Your task to perform on an android device: open app "ZOOM Cloud Meetings" (install if not already installed) Image 0: 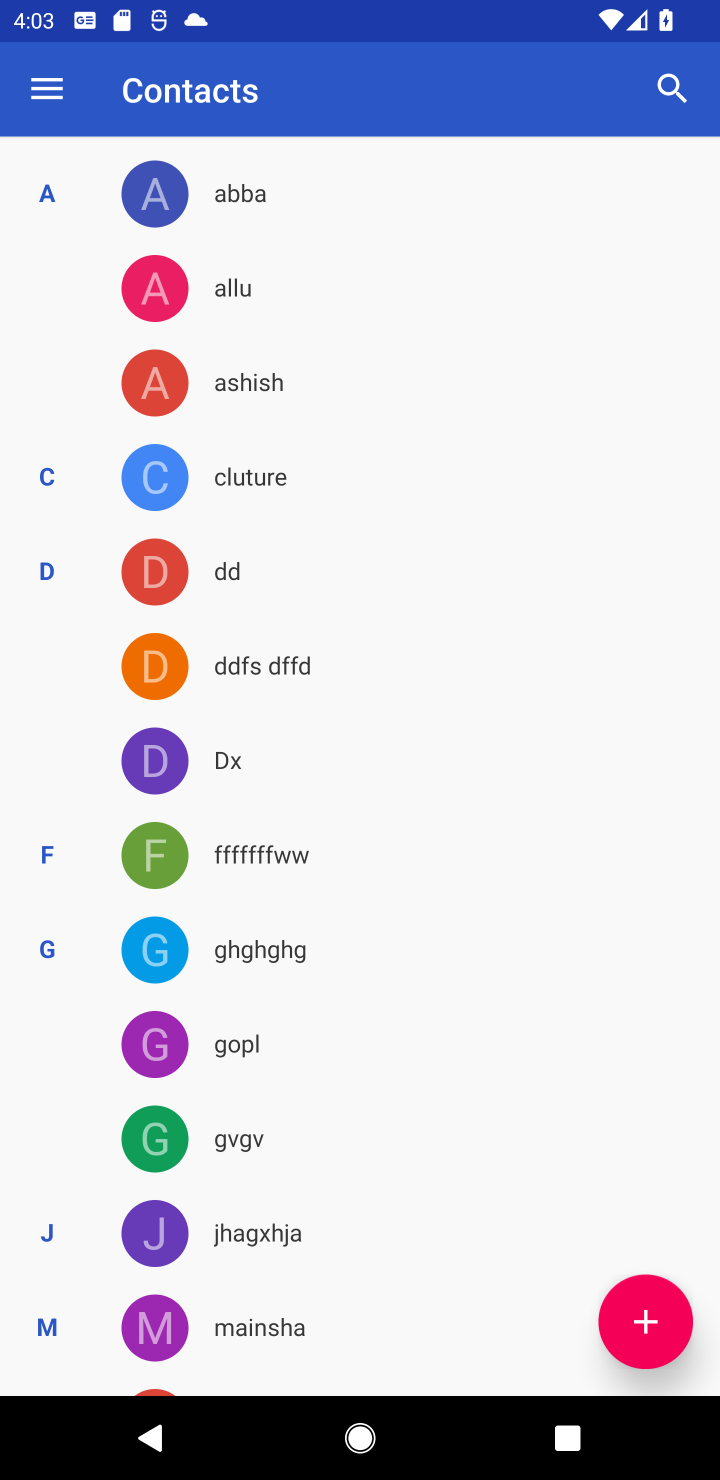
Step 0: press home button
Your task to perform on an android device: open app "ZOOM Cloud Meetings" (install if not already installed) Image 1: 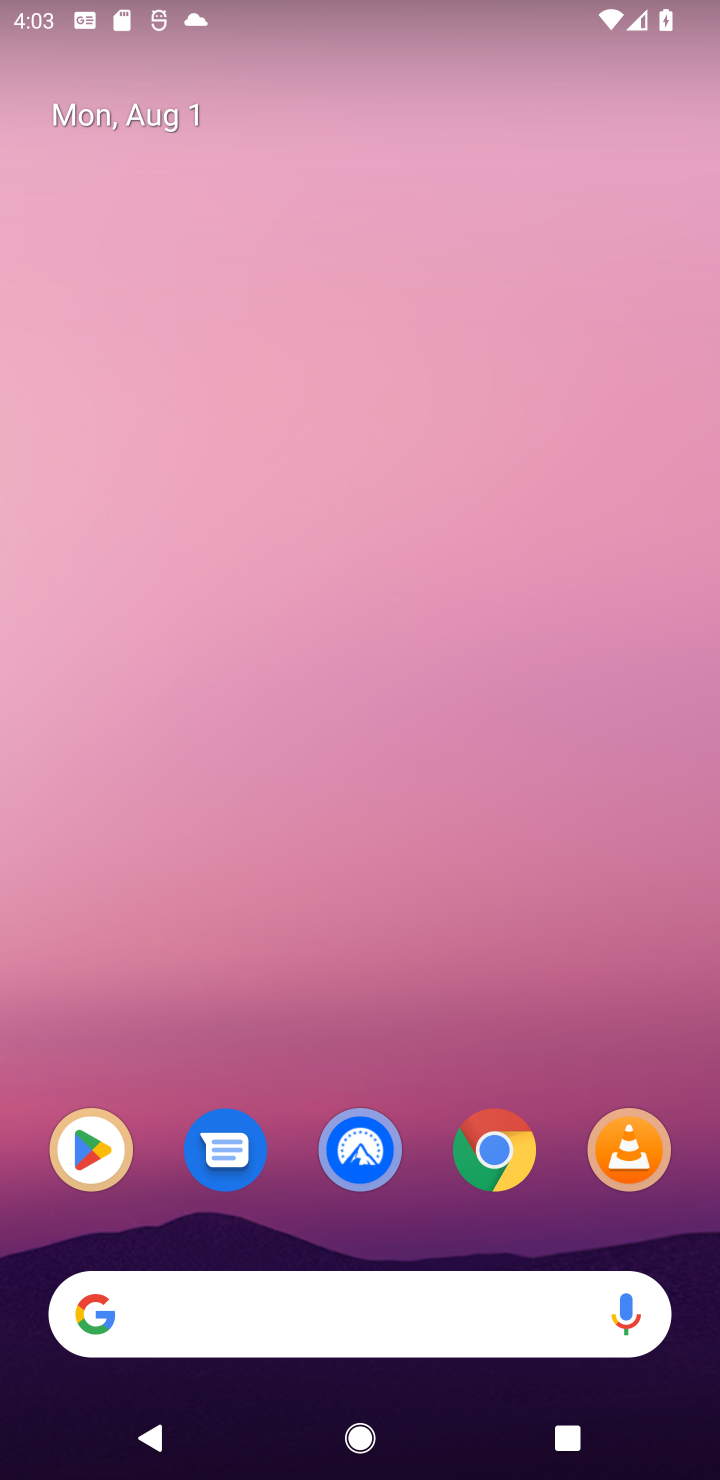
Step 1: drag from (330, 1145) to (417, 87)
Your task to perform on an android device: open app "ZOOM Cloud Meetings" (install if not already installed) Image 2: 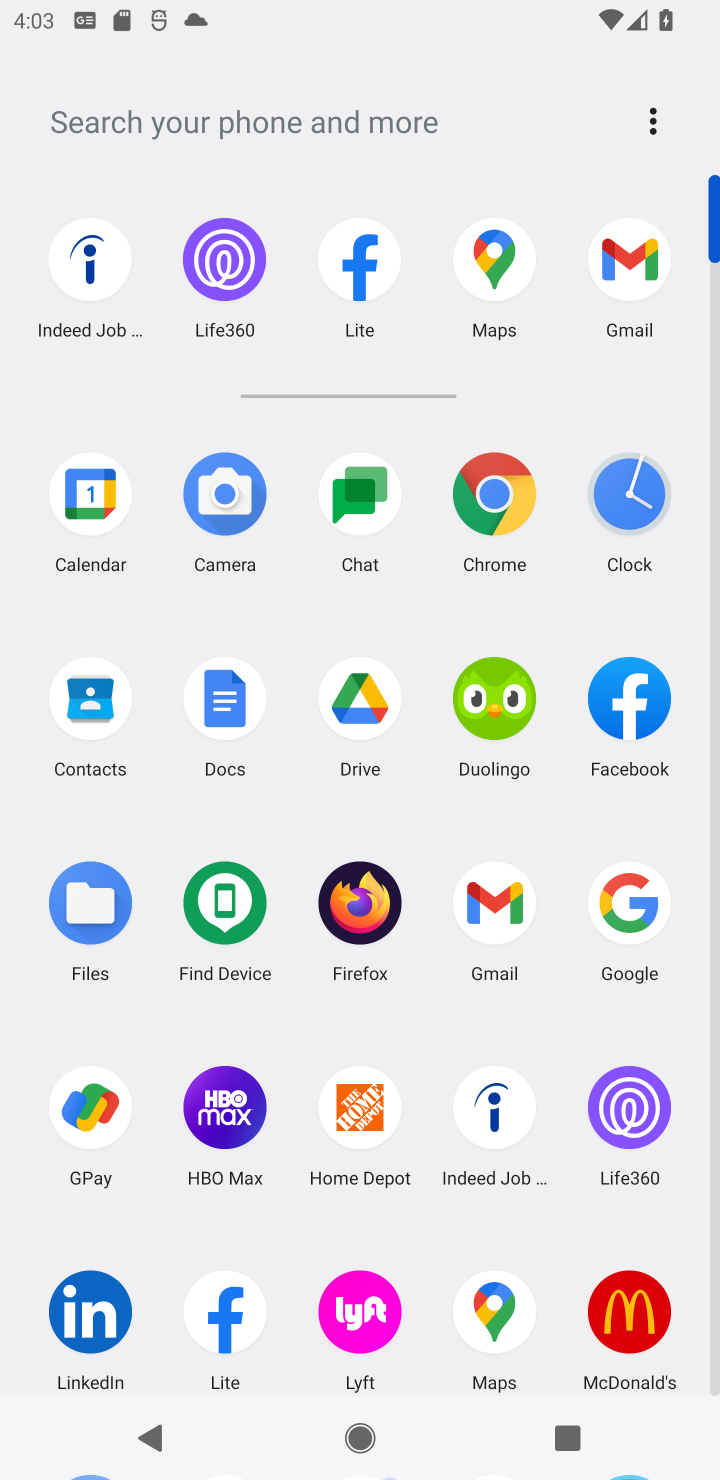
Step 2: click (713, 1387)
Your task to perform on an android device: open app "ZOOM Cloud Meetings" (install if not already installed) Image 3: 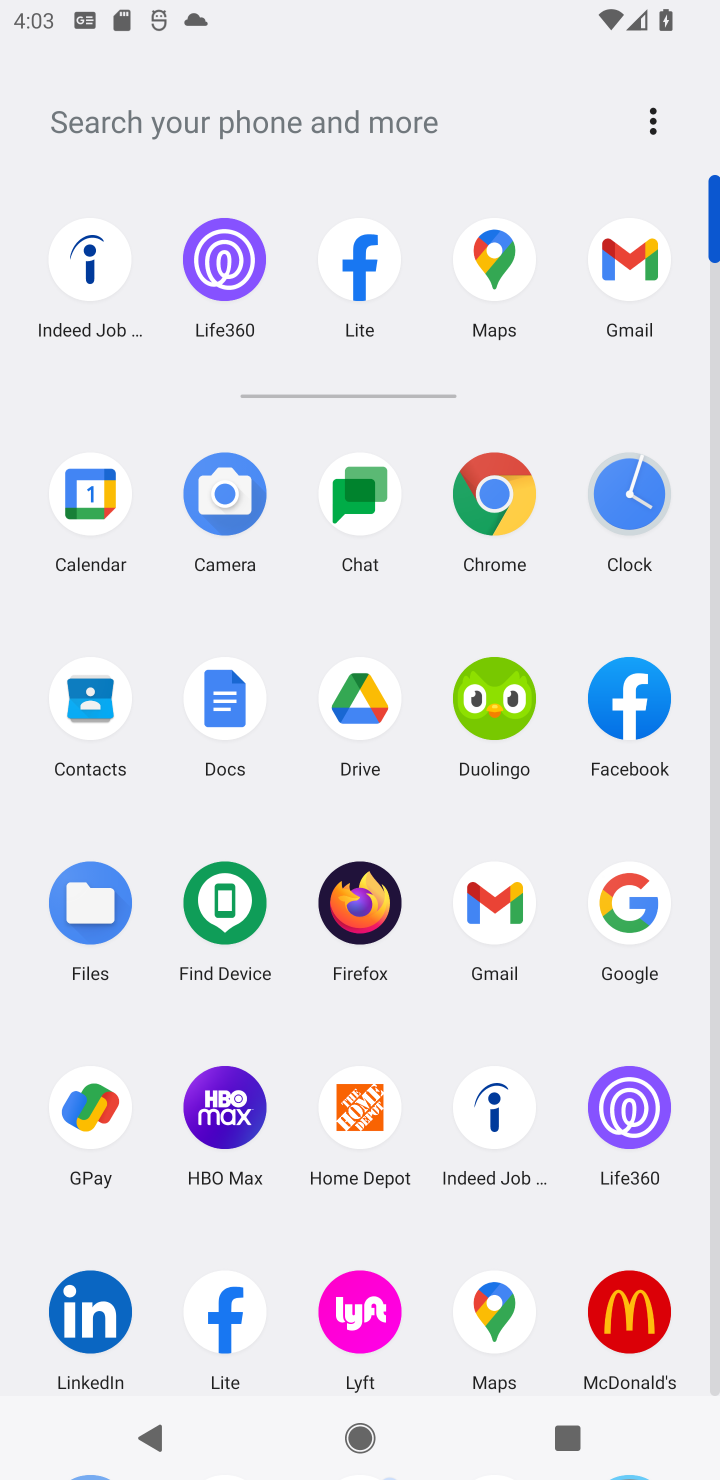
Step 3: click (715, 1387)
Your task to perform on an android device: open app "ZOOM Cloud Meetings" (install if not already installed) Image 4: 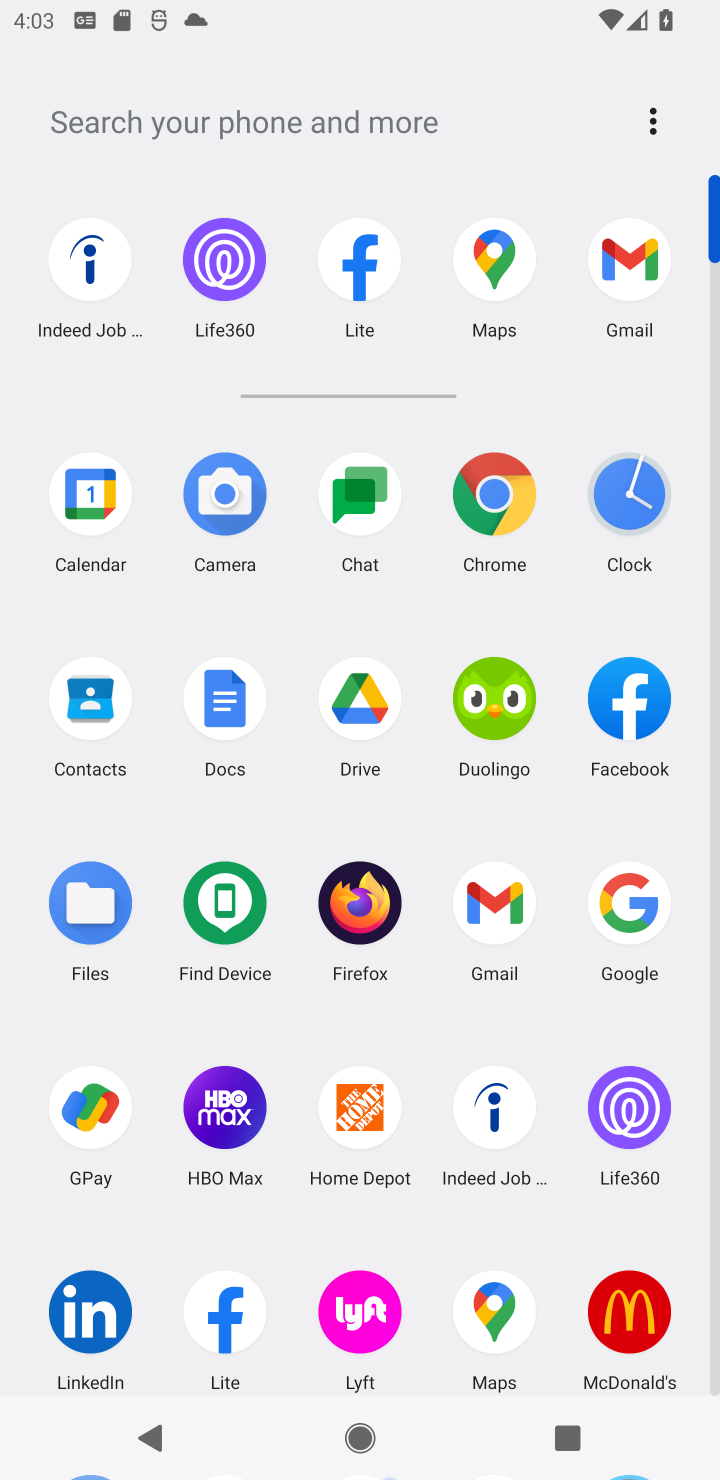
Step 4: click (715, 1387)
Your task to perform on an android device: open app "ZOOM Cloud Meetings" (install if not already installed) Image 5: 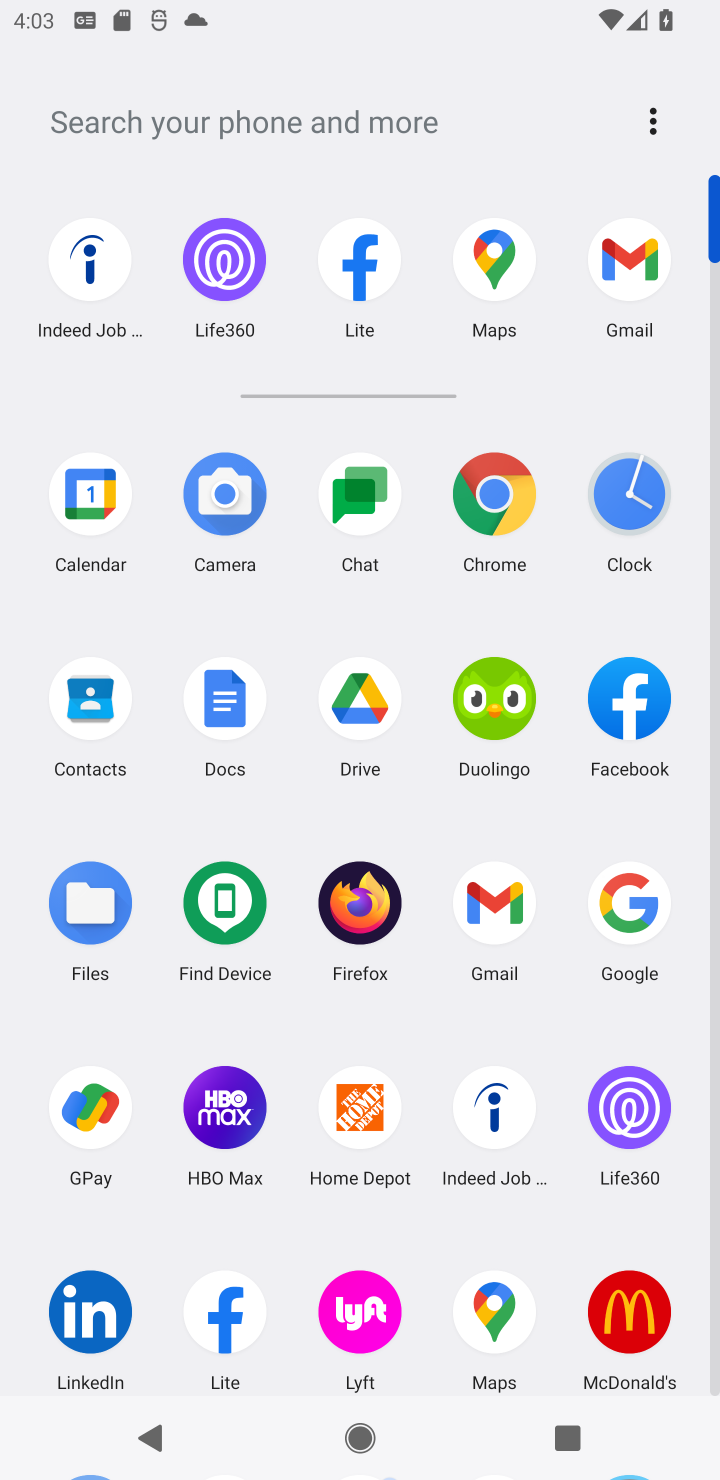
Step 5: click (715, 1387)
Your task to perform on an android device: open app "ZOOM Cloud Meetings" (install if not already installed) Image 6: 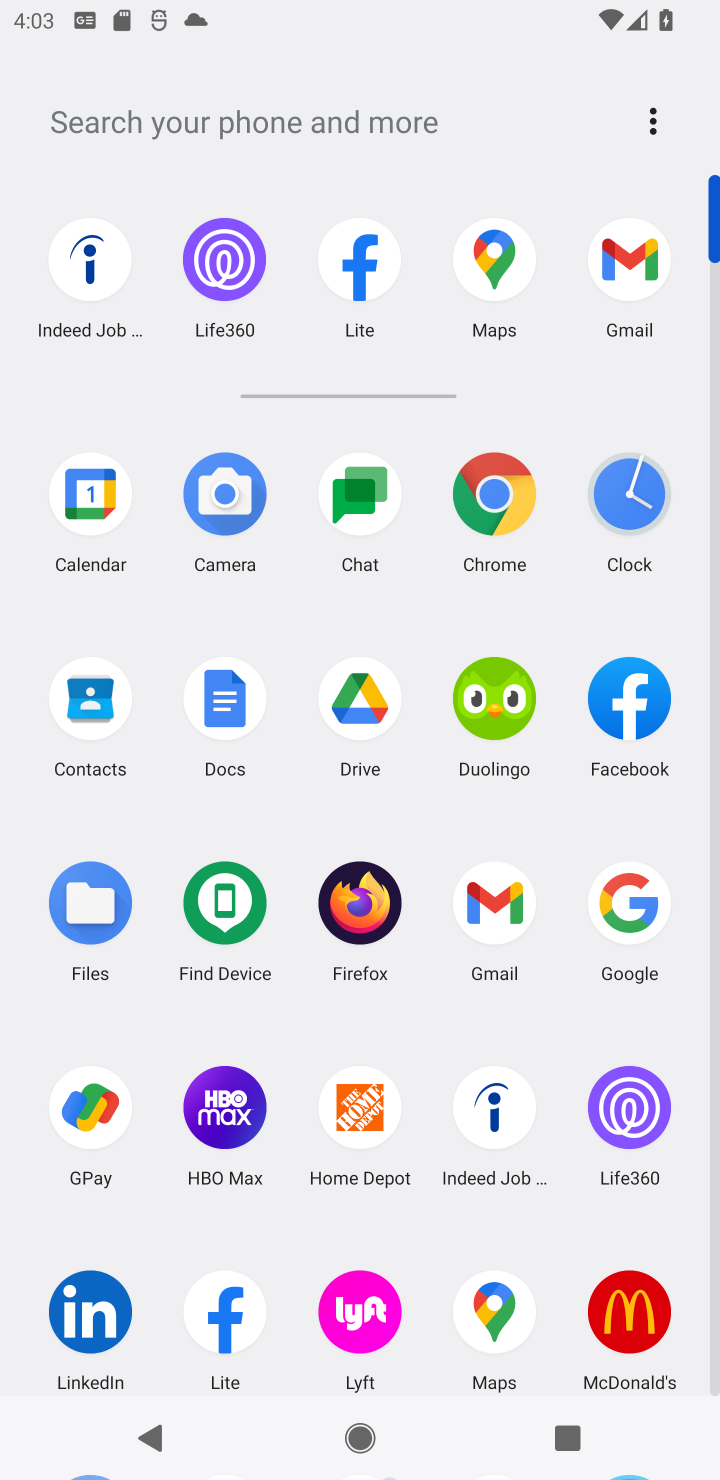
Step 6: click (715, 1387)
Your task to perform on an android device: open app "ZOOM Cloud Meetings" (install if not already installed) Image 7: 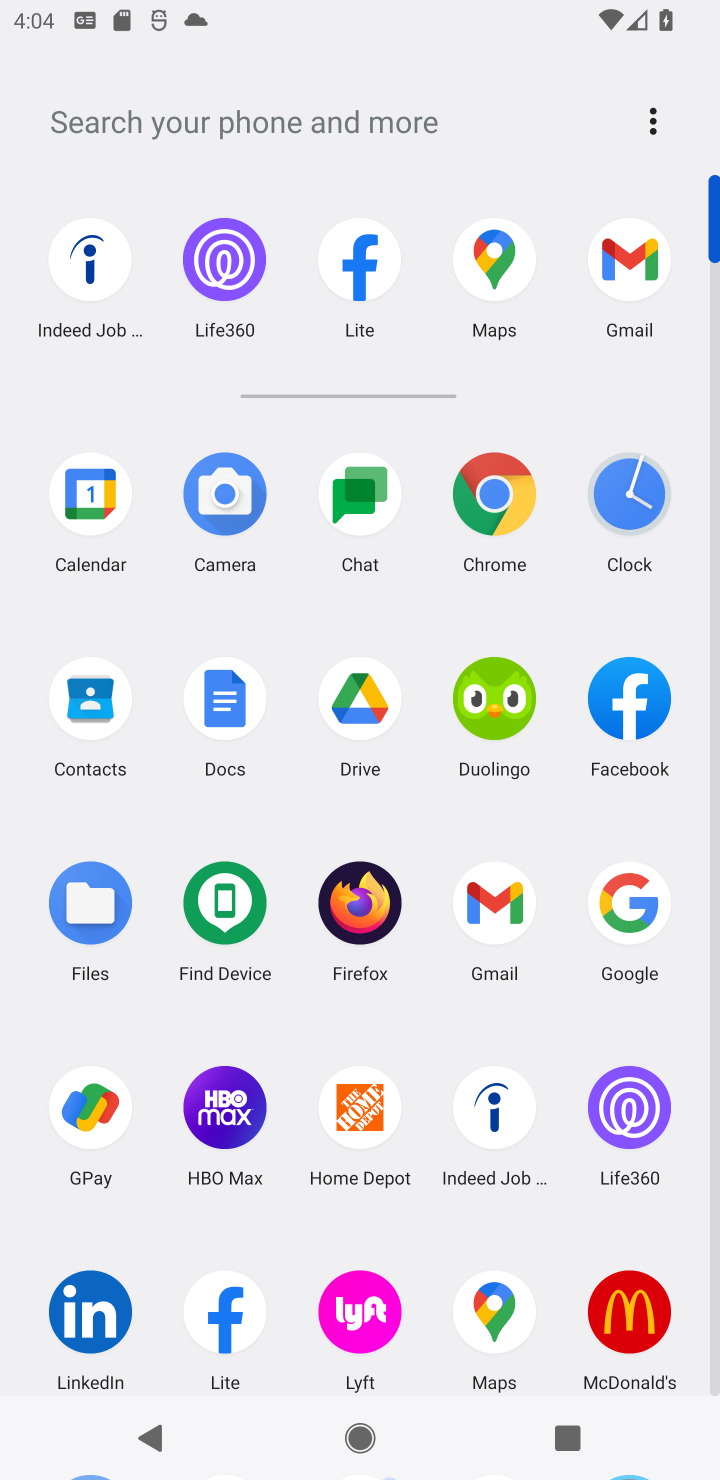
Step 7: drag from (715, 240) to (720, 1378)
Your task to perform on an android device: open app "ZOOM Cloud Meetings" (install if not already installed) Image 8: 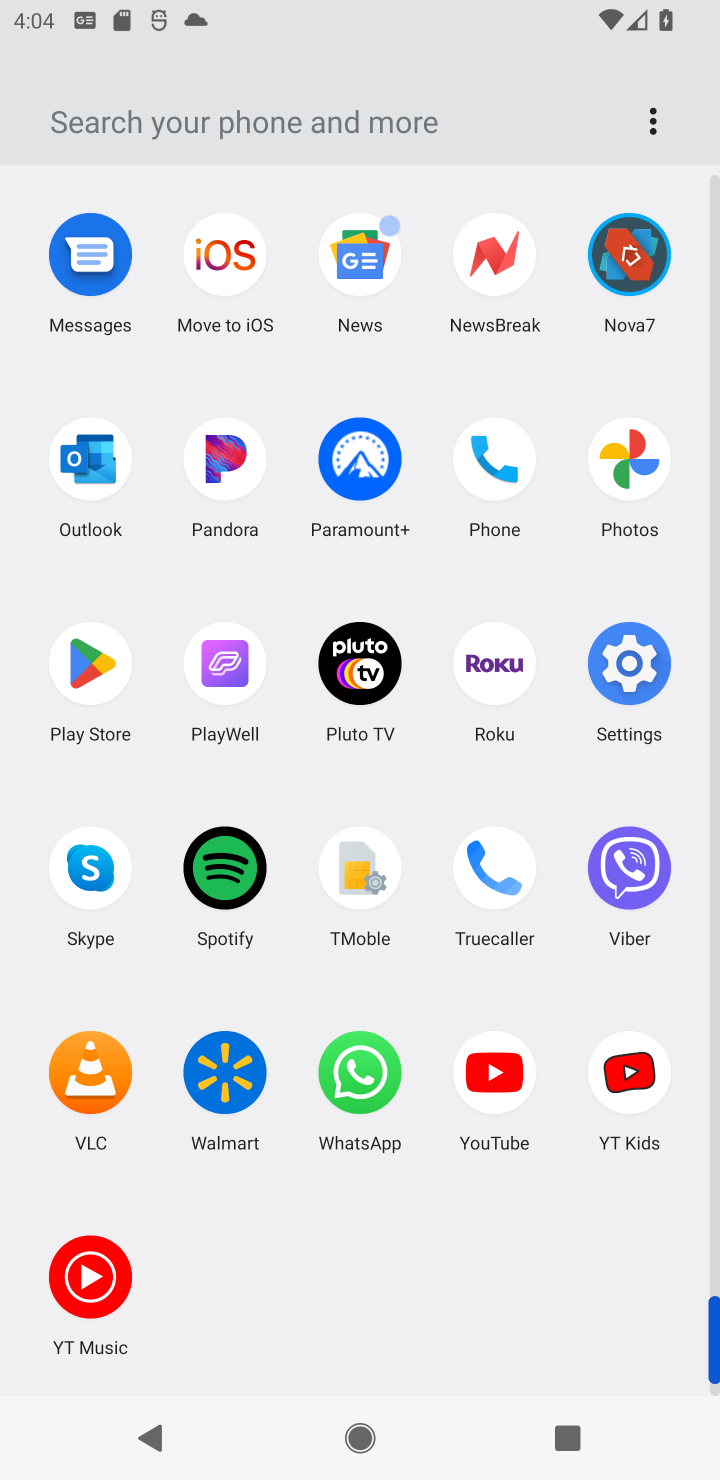
Step 8: click (106, 683)
Your task to perform on an android device: open app "ZOOM Cloud Meetings" (install if not already installed) Image 9: 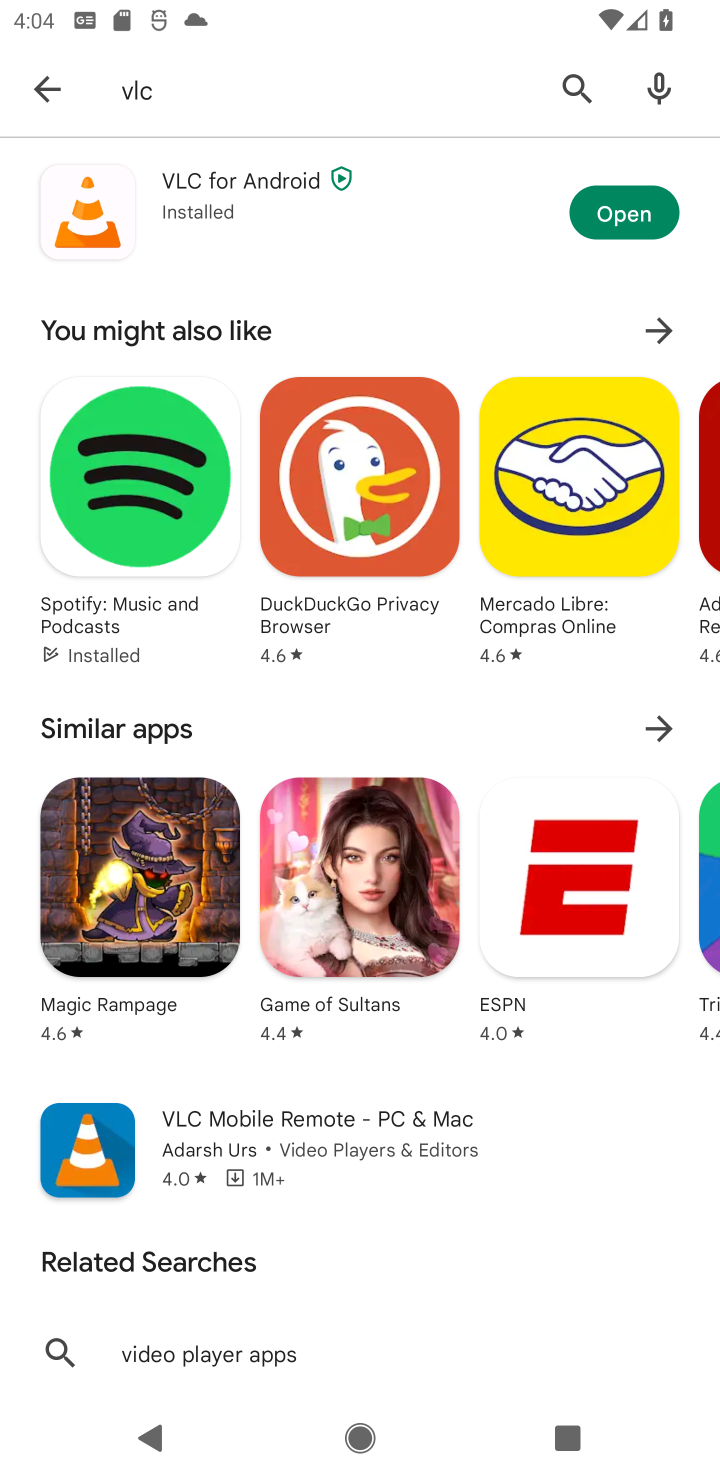
Step 9: click (569, 103)
Your task to perform on an android device: open app "ZOOM Cloud Meetings" (install if not already installed) Image 10: 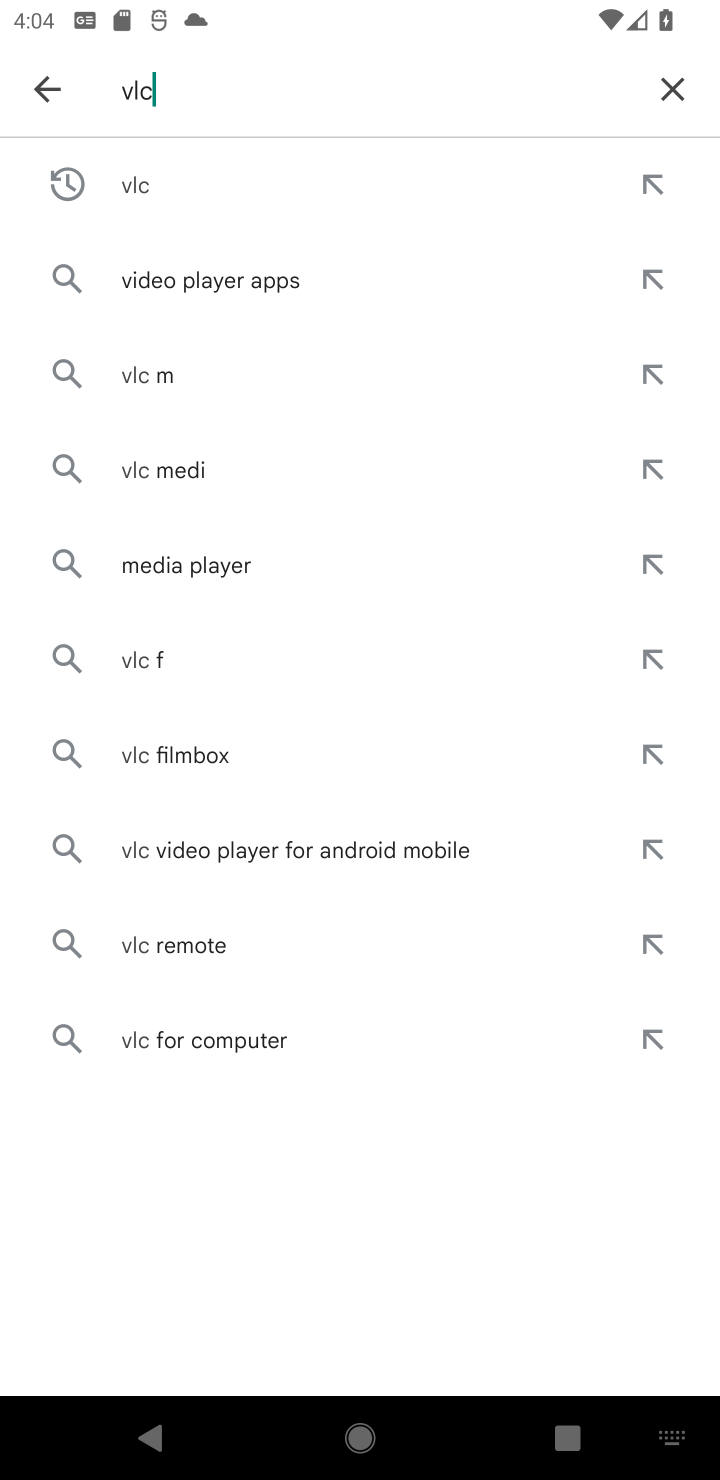
Step 10: click (665, 111)
Your task to perform on an android device: open app "ZOOM Cloud Meetings" (install if not already installed) Image 11: 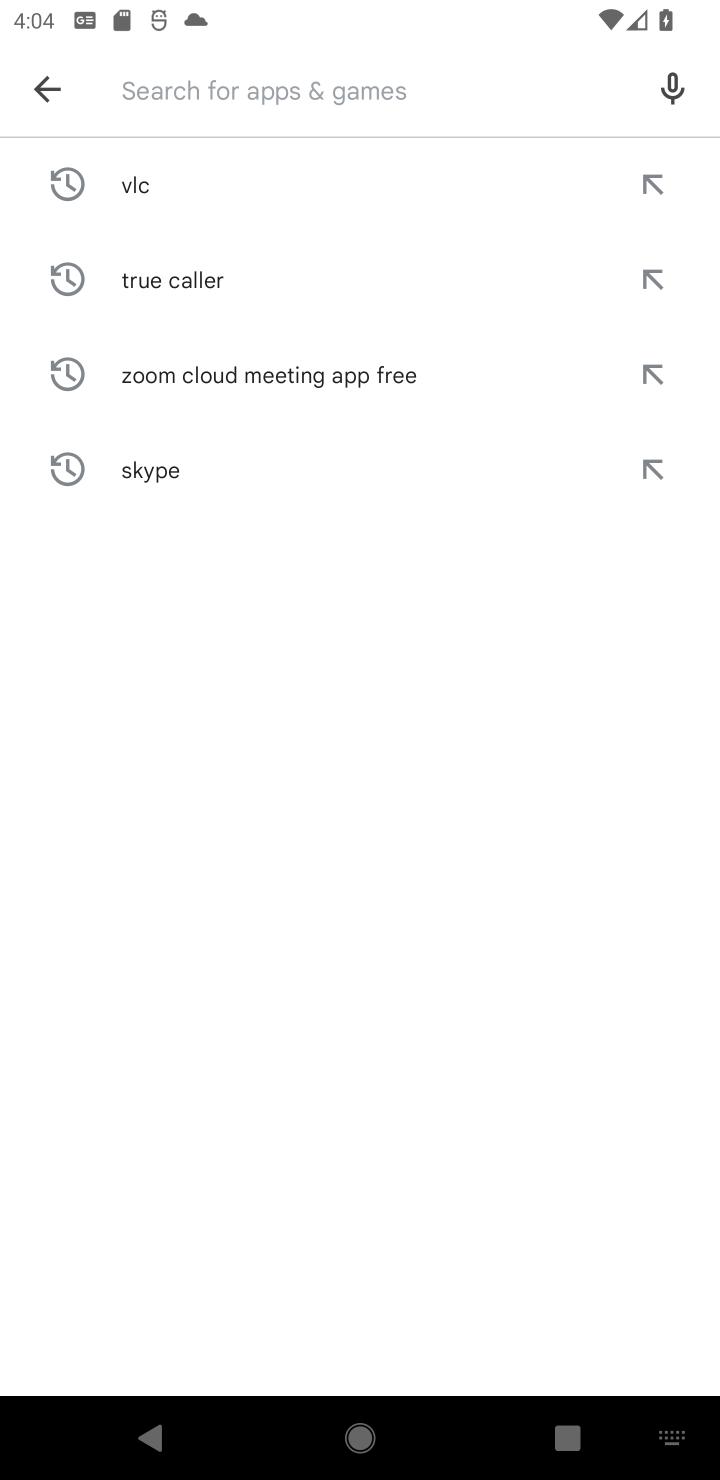
Step 11: type "zoom "
Your task to perform on an android device: open app "ZOOM Cloud Meetings" (install if not already installed) Image 12: 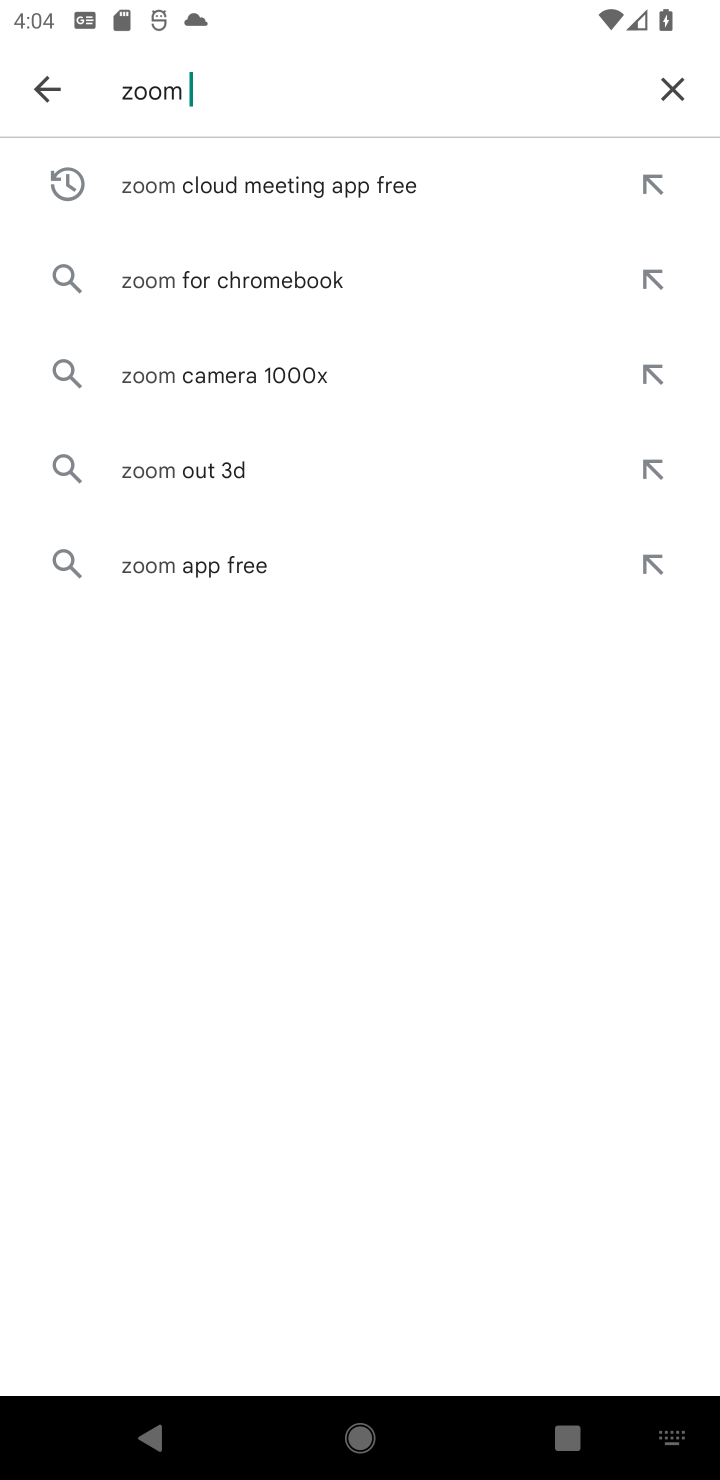
Step 12: click (508, 178)
Your task to perform on an android device: open app "ZOOM Cloud Meetings" (install if not already installed) Image 13: 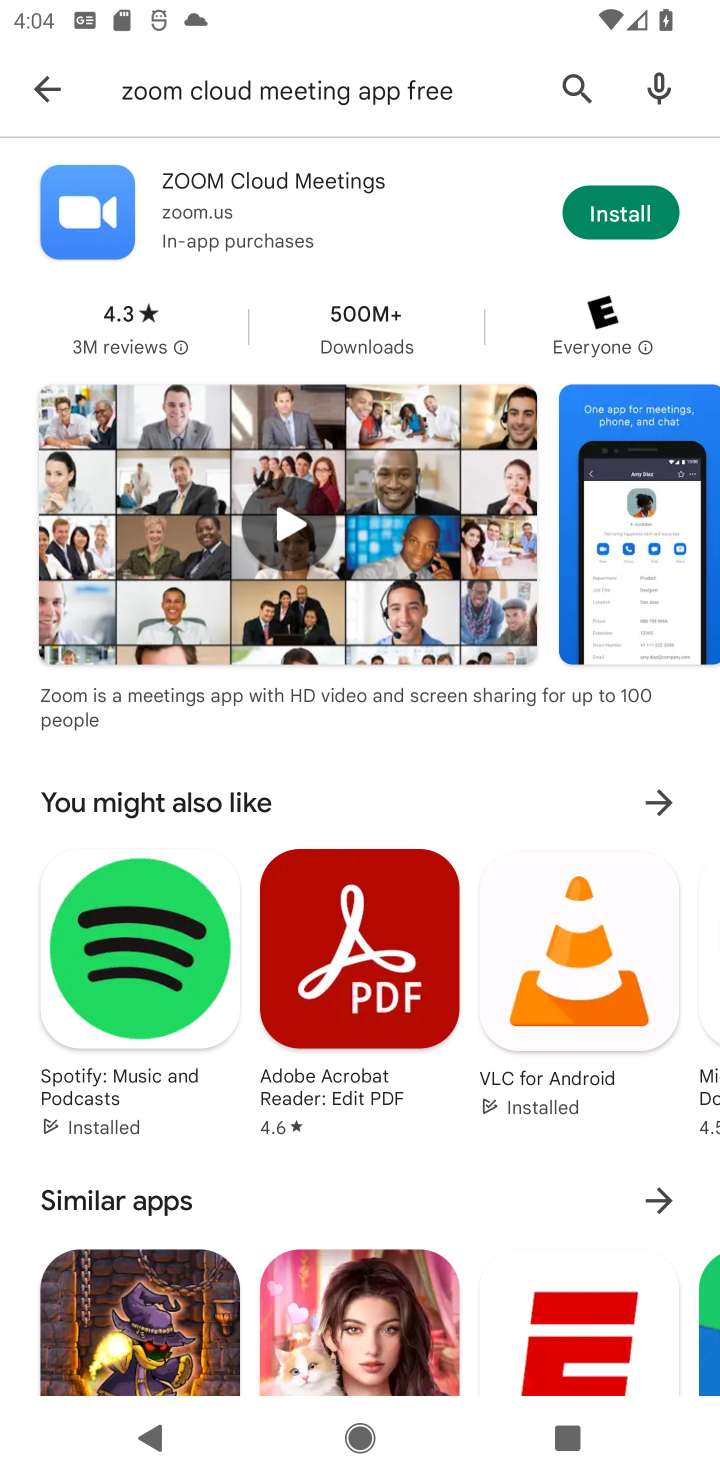
Step 13: click (642, 221)
Your task to perform on an android device: open app "ZOOM Cloud Meetings" (install if not already installed) Image 14: 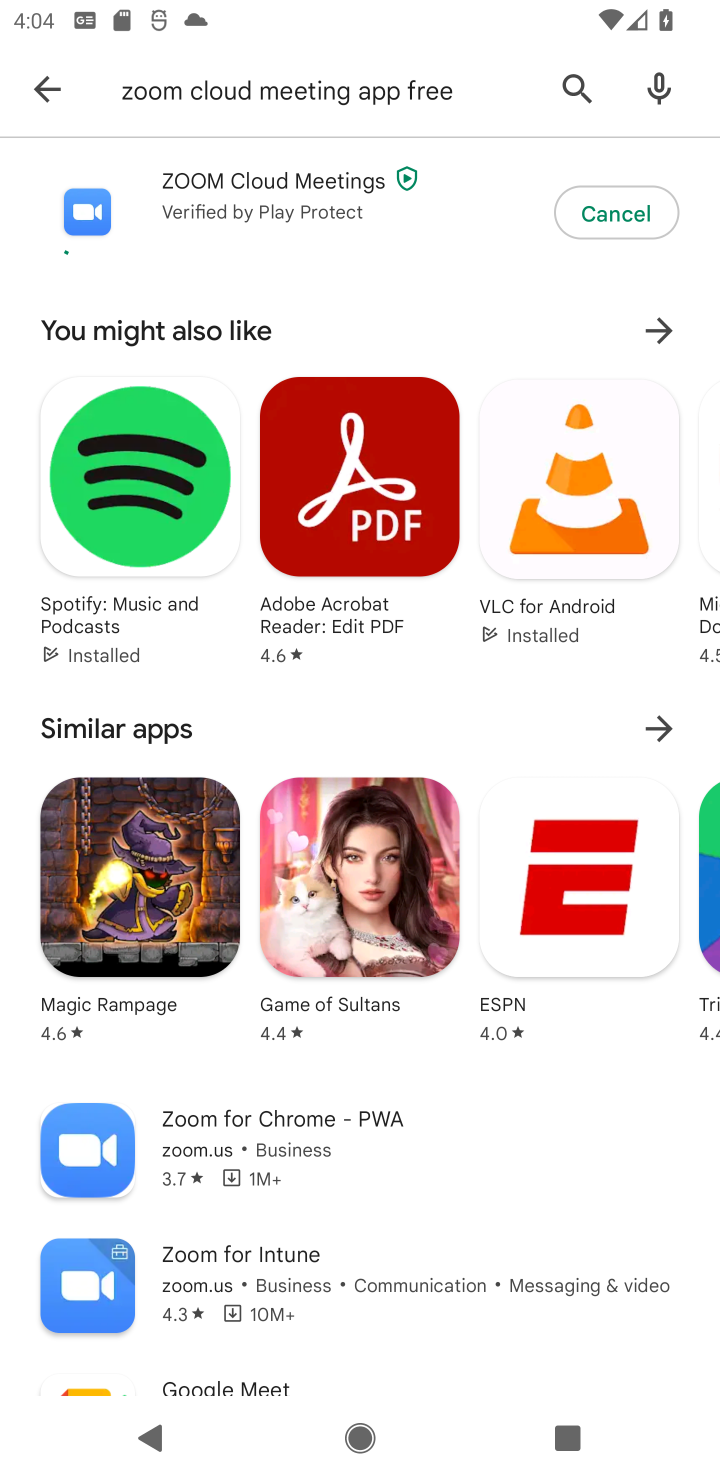
Step 14: task complete